Your task to perform on an android device: turn off smart reply in the gmail app Image 0: 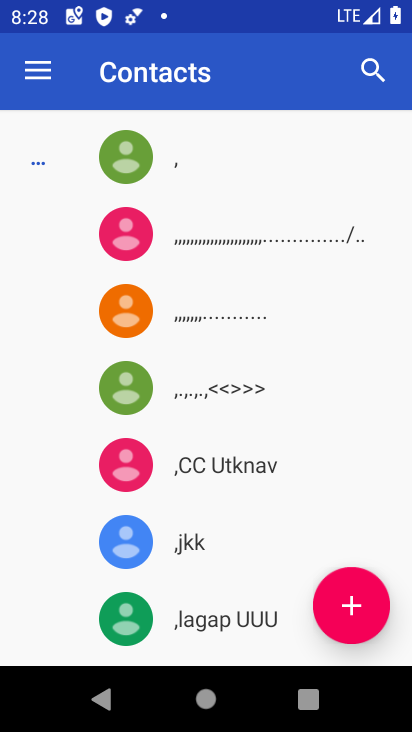
Step 0: press home button
Your task to perform on an android device: turn off smart reply in the gmail app Image 1: 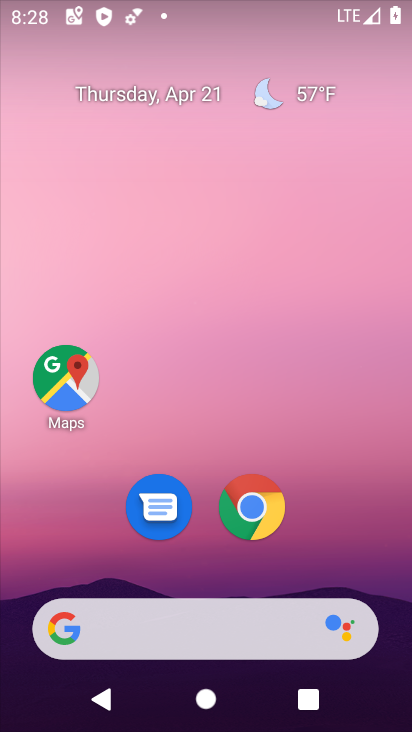
Step 1: drag from (360, 441) to (338, 14)
Your task to perform on an android device: turn off smart reply in the gmail app Image 2: 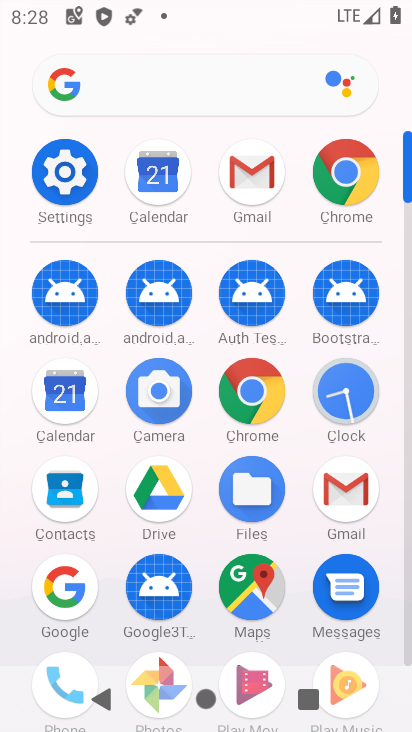
Step 2: click (266, 160)
Your task to perform on an android device: turn off smart reply in the gmail app Image 3: 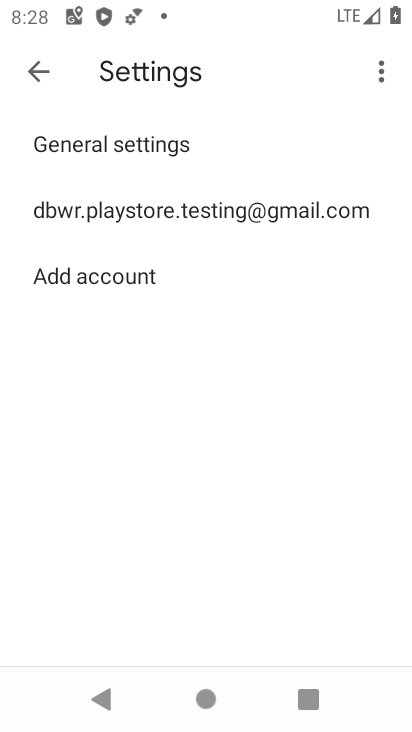
Step 3: click (37, 74)
Your task to perform on an android device: turn off smart reply in the gmail app Image 4: 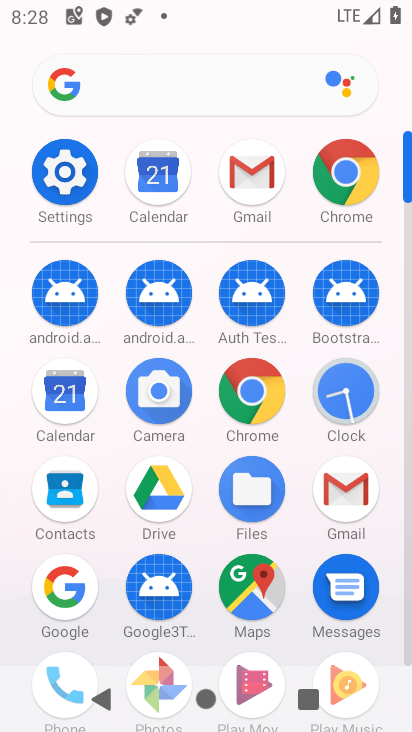
Step 4: click (256, 148)
Your task to perform on an android device: turn off smart reply in the gmail app Image 5: 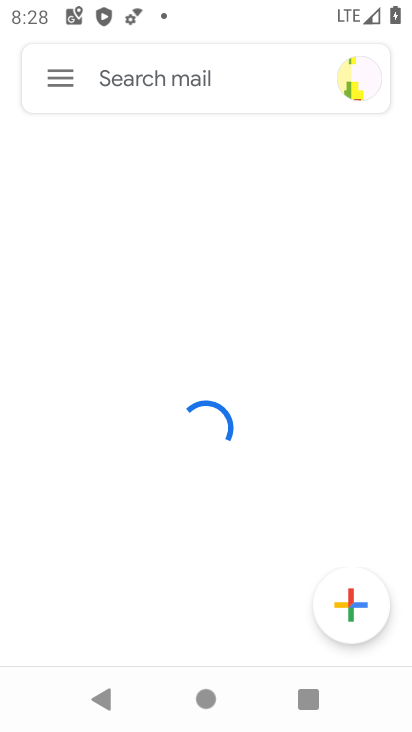
Step 5: click (45, 70)
Your task to perform on an android device: turn off smart reply in the gmail app Image 6: 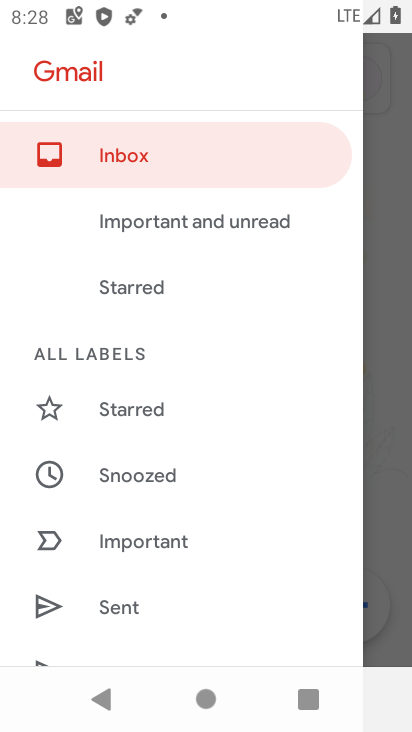
Step 6: drag from (243, 471) to (301, 36)
Your task to perform on an android device: turn off smart reply in the gmail app Image 7: 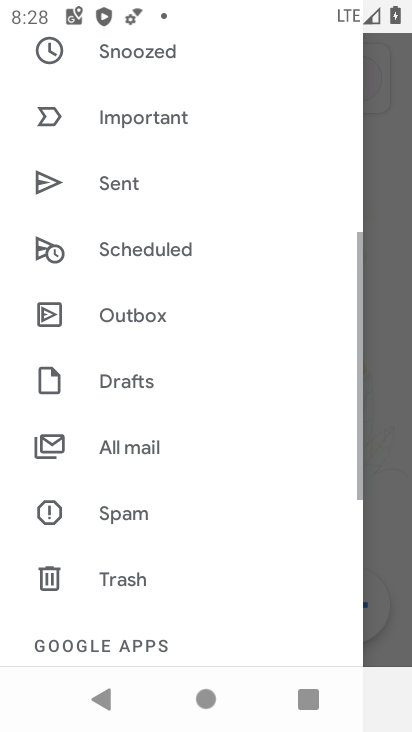
Step 7: drag from (276, 397) to (259, 2)
Your task to perform on an android device: turn off smart reply in the gmail app Image 8: 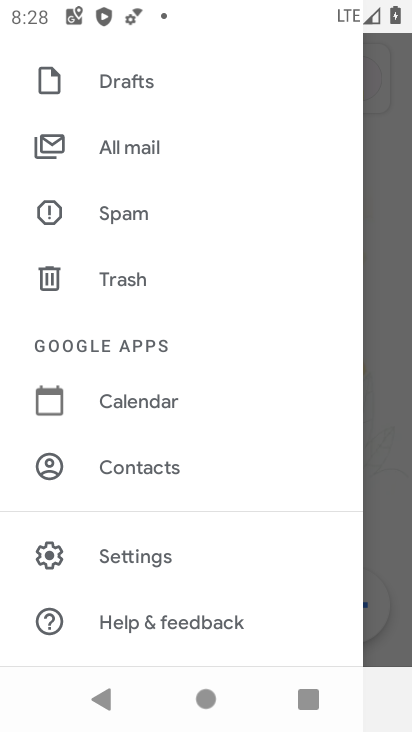
Step 8: click (154, 556)
Your task to perform on an android device: turn off smart reply in the gmail app Image 9: 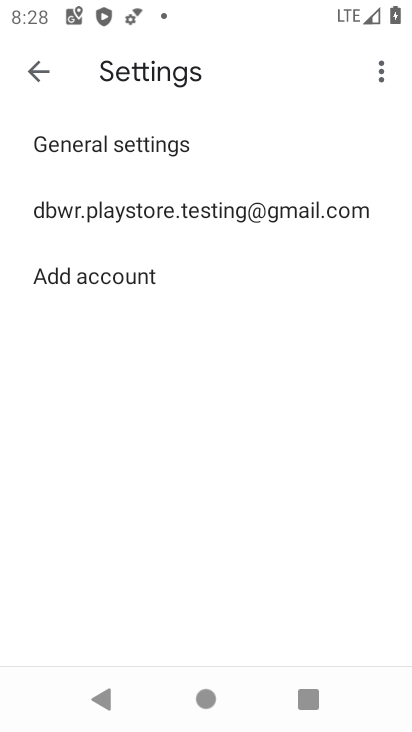
Step 9: click (213, 204)
Your task to perform on an android device: turn off smart reply in the gmail app Image 10: 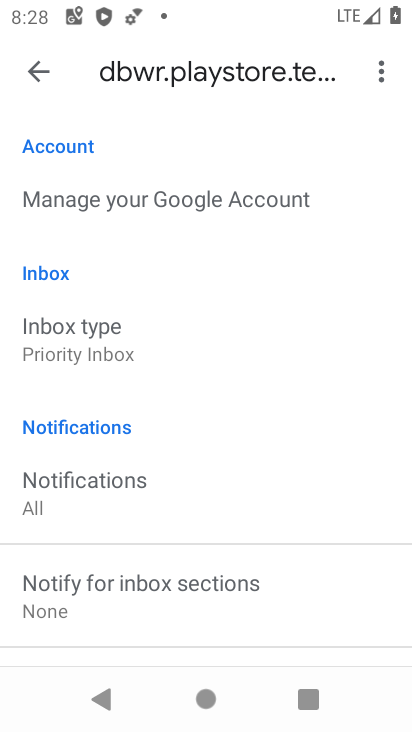
Step 10: drag from (219, 479) to (187, 58)
Your task to perform on an android device: turn off smart reply in the gmail app Image 11: 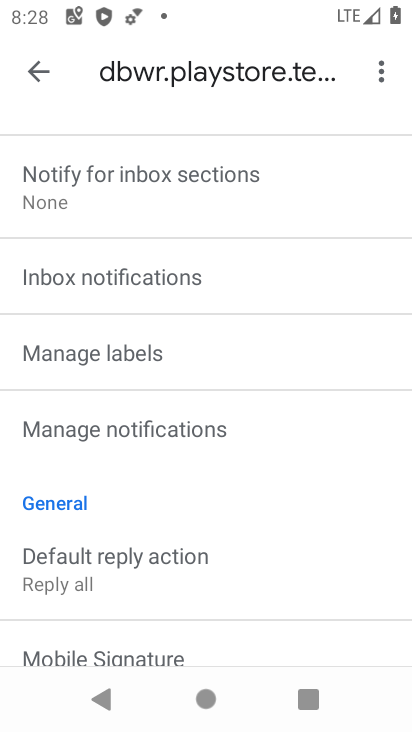
Step 11: drag from (281, 561) to (228, 127)
Your task to perform on an android device: turn off smart reply in the gmail app Image 12: 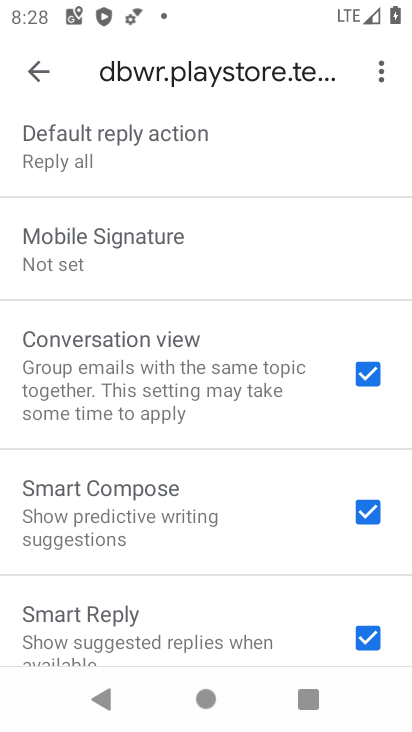
Step 12: click (153, 624)
Your task to perform on an android device: turn off smart reply in the gmail app Image 13: 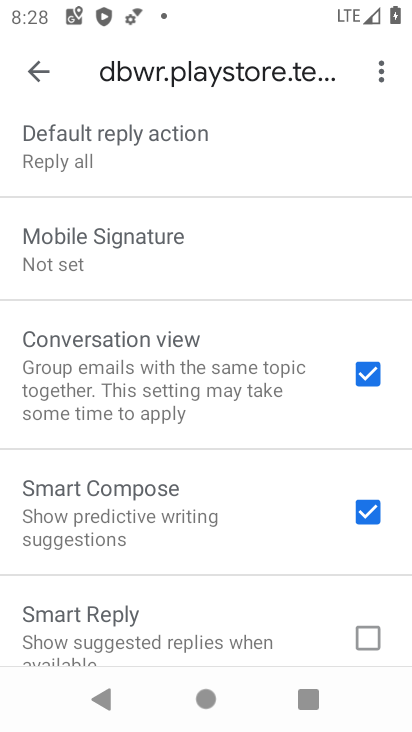
Step 13: task complete